Your task to perform on an android device: What is the news today? Image 0: 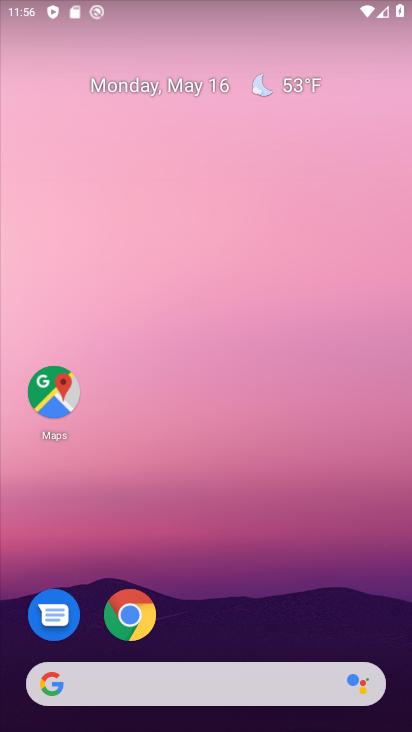
Step 0: drag from (281, 607) to (286, 188)
Your task to perform on an android device: What is the news today? Image 1: 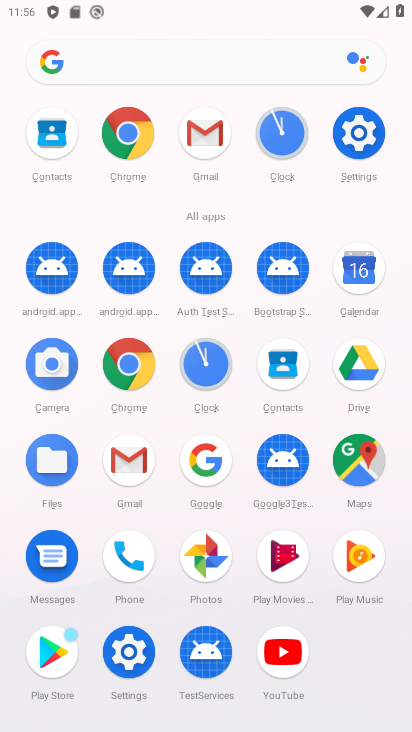
Step 1: click (208, 81)
Your task to perform on an android device: What is the news today? Image 2: 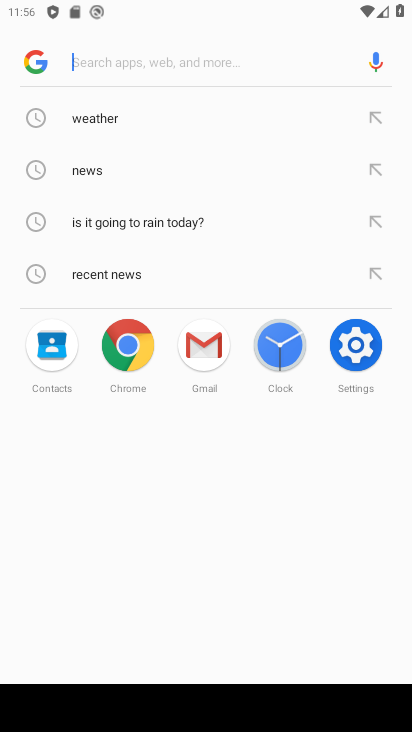
Step 2: drag from (131, 127) to (121, 163)
Your task to perform on an android device: What is the news today? Image 3: 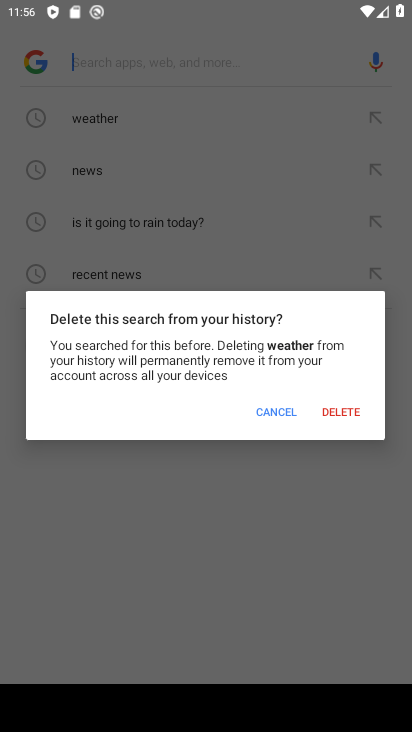
Step 3: press back button
Your task to perform on an android device: What is the news today? Image 4: 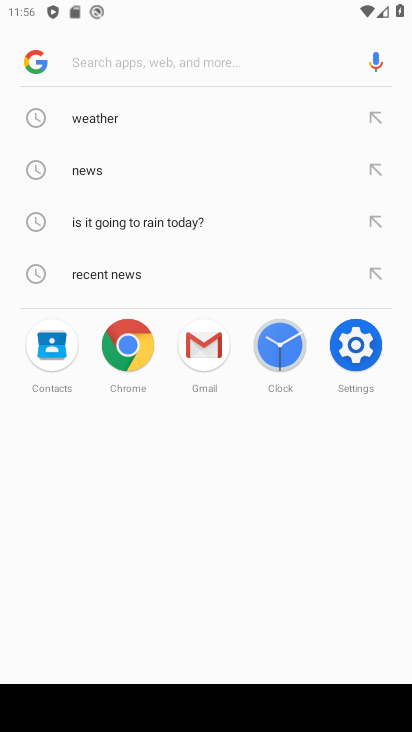
Step 4: click (152, 166)
Your task to perform on an android device: What is the news today? Image 5: 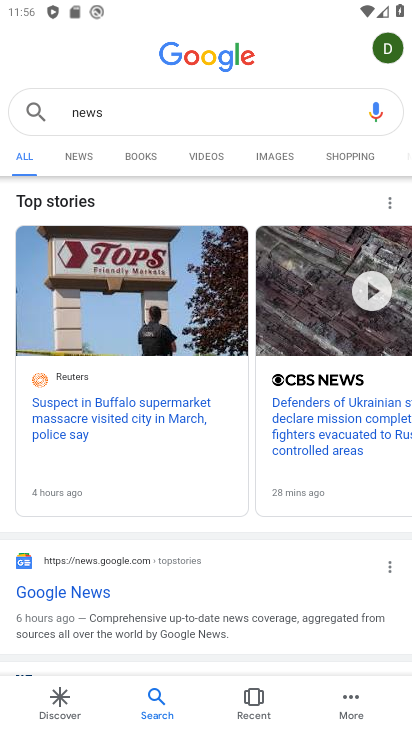
Step 5: task complete